Your task to perform on an android device: turn off data saver in the chrome app Image 0: 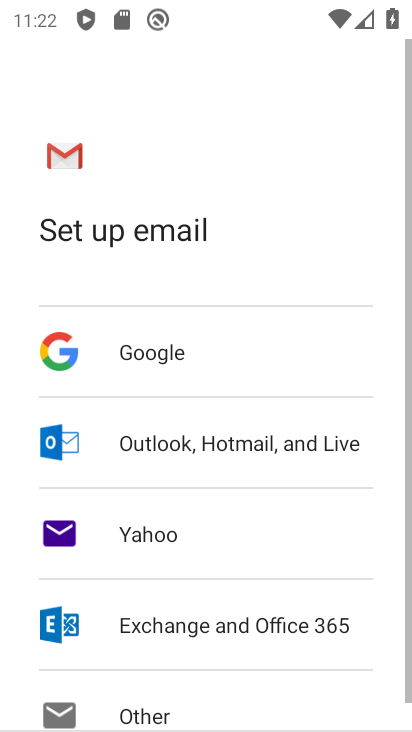
Step 0: press home button
Your task to perform on an android device: turn off data saver in the chrome app Image 1: 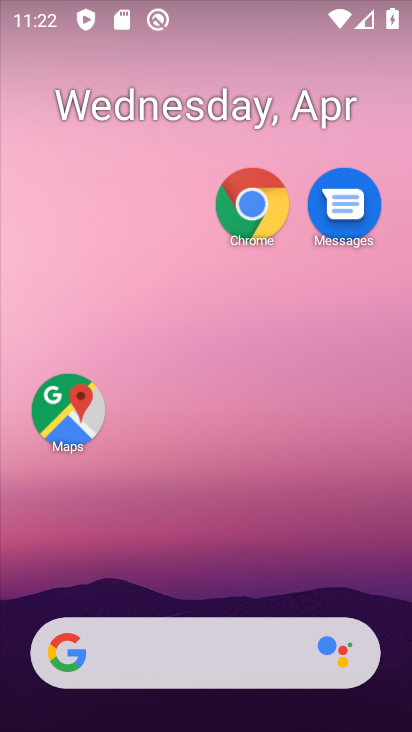
Step 1: drag from (223, 600) to (285, 26)
Your task to perform on an android device: turn off data saver in the chrome app Image 2: 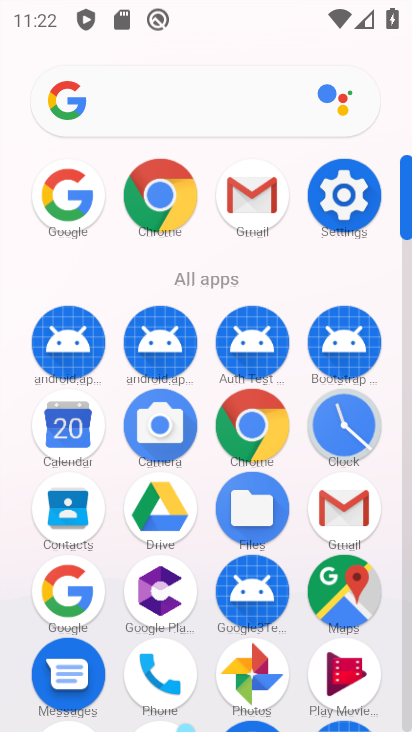
Step 2: click (145, 200)
Your task to perform on an android device: turn off data saver in the chrome app Image 3: 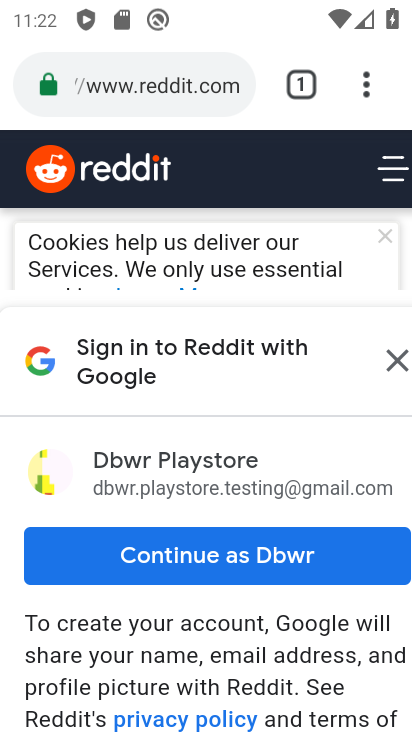
Step 3: drag from (364, 93) to (159, 609)
Your task to perform on an android device: turn off data saver in the chrome app Image 4: 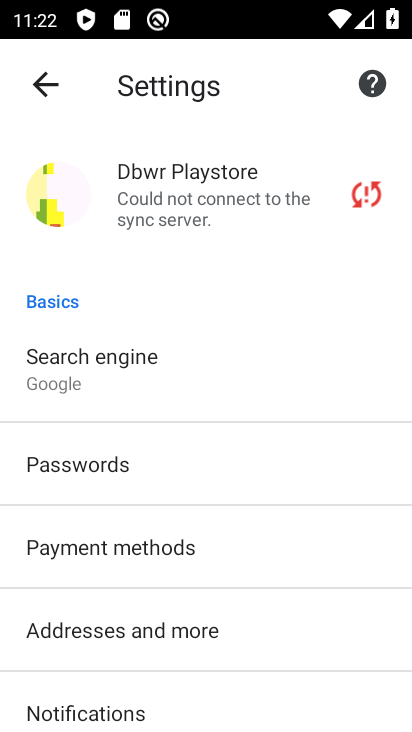
Step 4: drag from (157, 609) to (88, 97)
Your task to perform on an android device: turn off data saver in the chrome app Image 5: 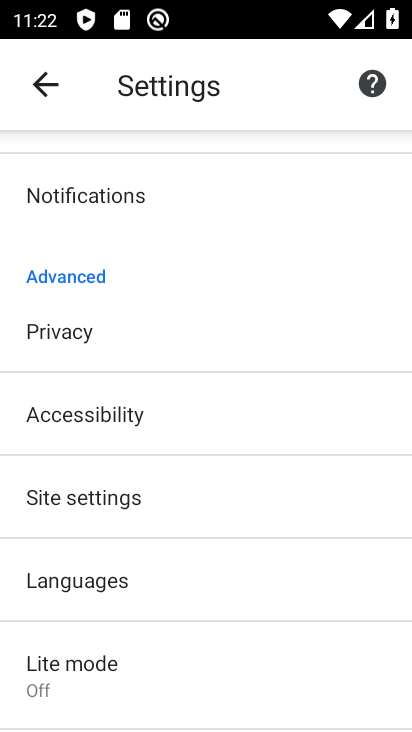
Step 5: click (117, 632)
Your task to perform on an android device: turn off data saver in the chrome app Image 6: 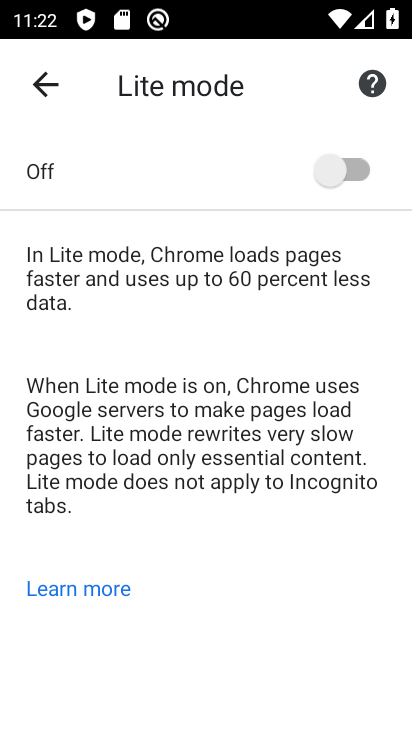
Step 6: task complete